Your task to perform on an android device: set an alarm Image 0: 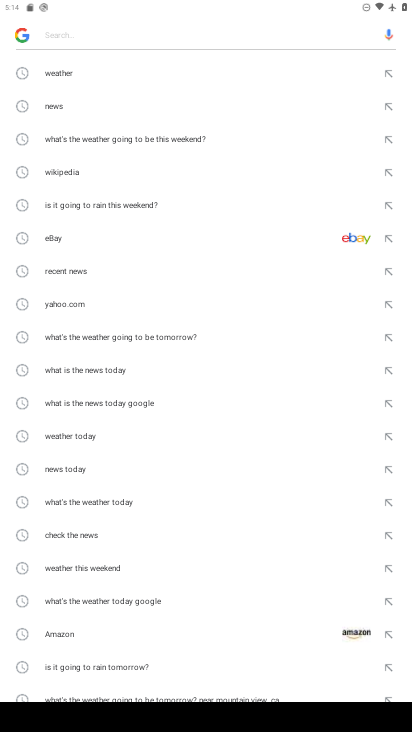
Step 0: press home button
Your task to perform on an android device: set an alarm Image 1: 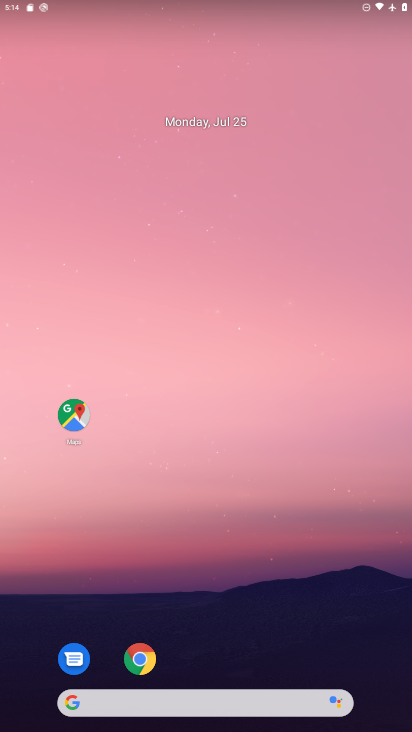
Step 1: drag from (268, 636) to (270, 113)
Your task to perform on an android device: set an alarm Image 2: 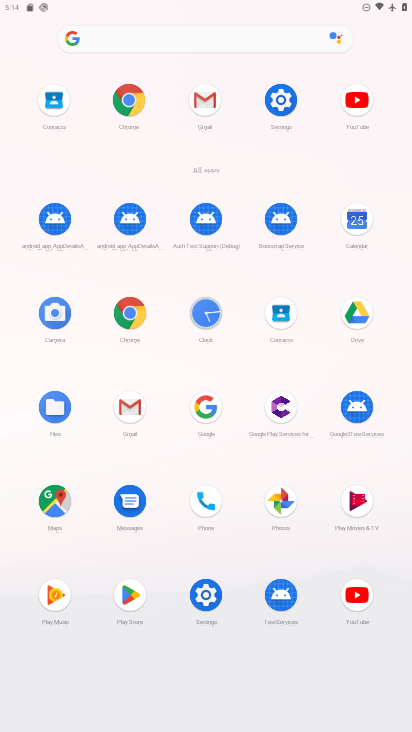
Step 2: click (206, 328)
Your task to perform on an android device: set an alarm Image 3: 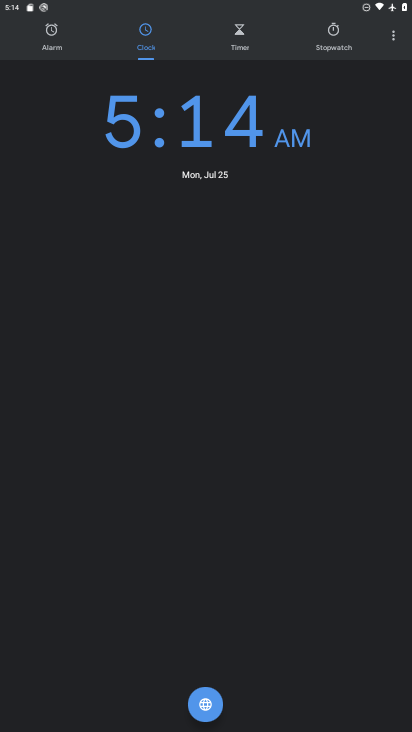
Step 3: click (56, 32)
Your task to perform on an android device: set an alarm Image 4: 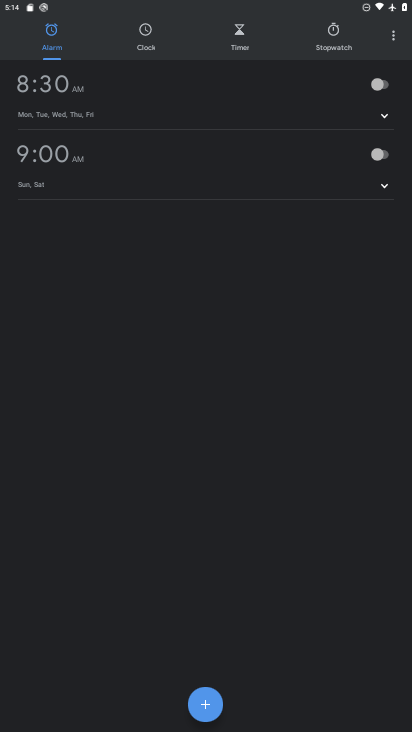
Step 4: click (198, 706)
Your task to perform on an android device: set an alarm Image 5: 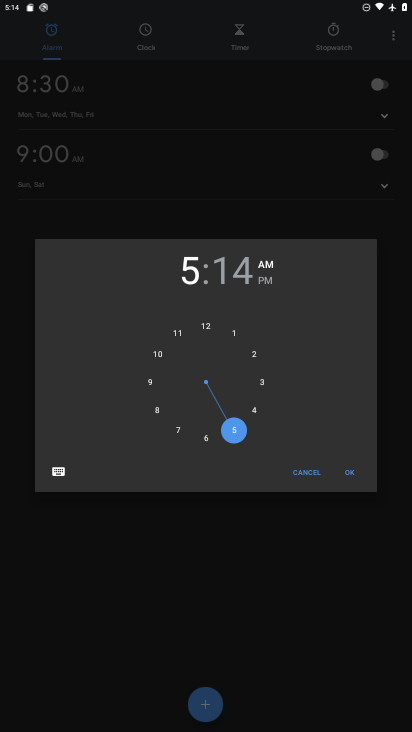
Step 5: click (350, 476)
Your task to perform on an android device: set an alarm Image 6: 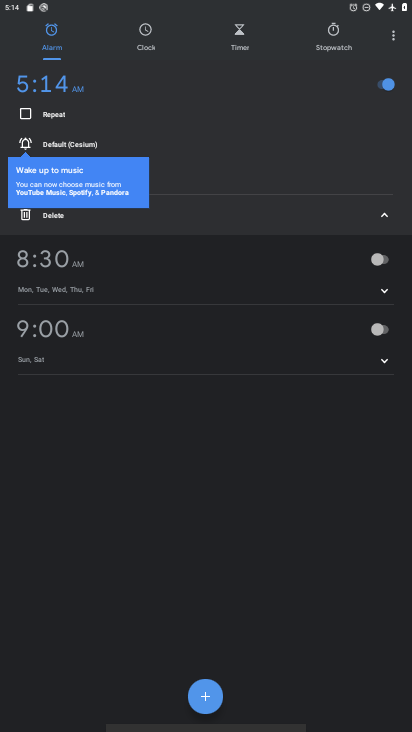
Step 6: task complete